Your task to perform on an android device: Open calendar and show me the second week of next month Image 0: 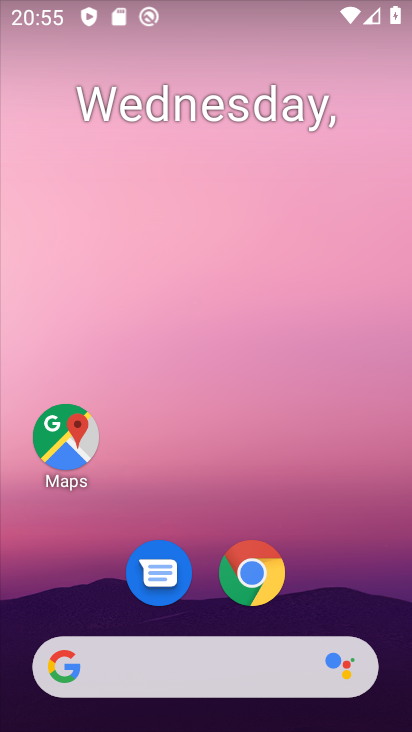
Step 0: drag from (352, 597) to (322, 193)
Your task to perform on an android device: Open calendar and show me the second week of next month Image 1: 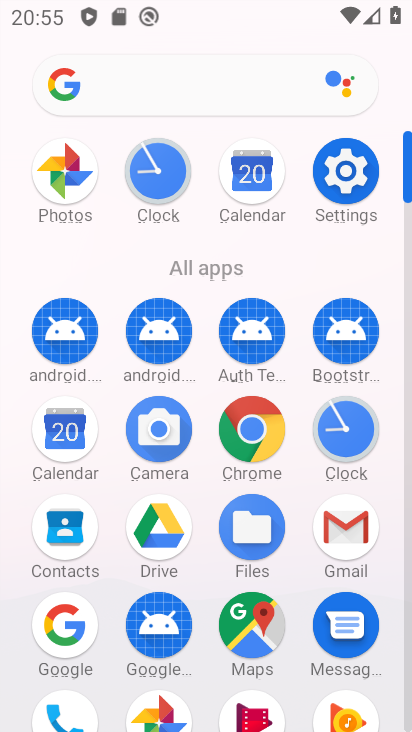
Step 1: click (57, 424)
Your task to perform on an android device: Open calendar and show me the second week of next month Image 2: 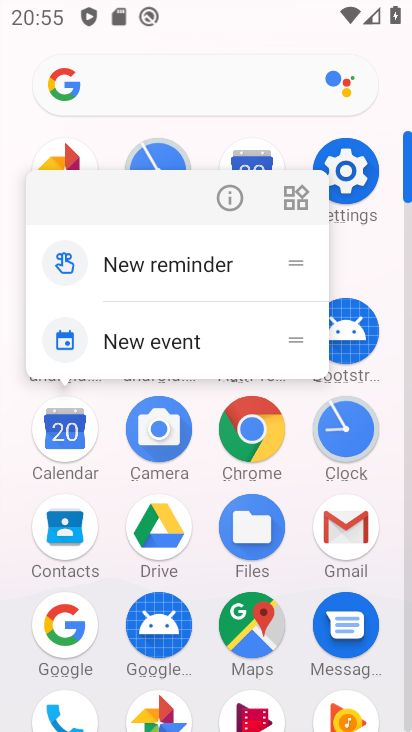
Step 2: click (61, 444)
Your task to perform on an android device: Open calendar and show me the second week of next month Image 3: 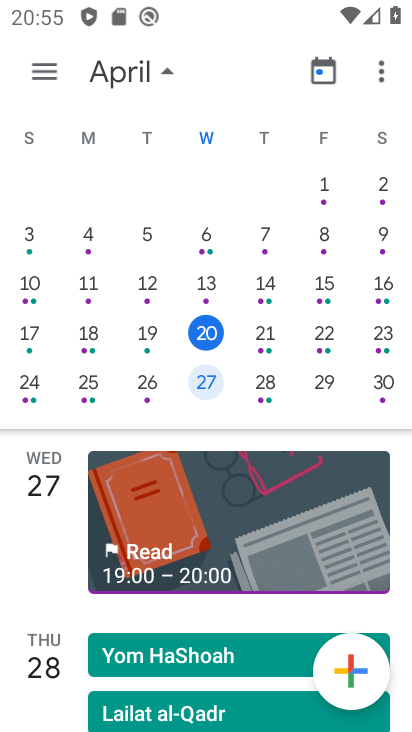
Step 3: drag from (391, 266) to (0, 261)
Your task to perform on an android device: Open calendar and show me the second week of next month Image 4: 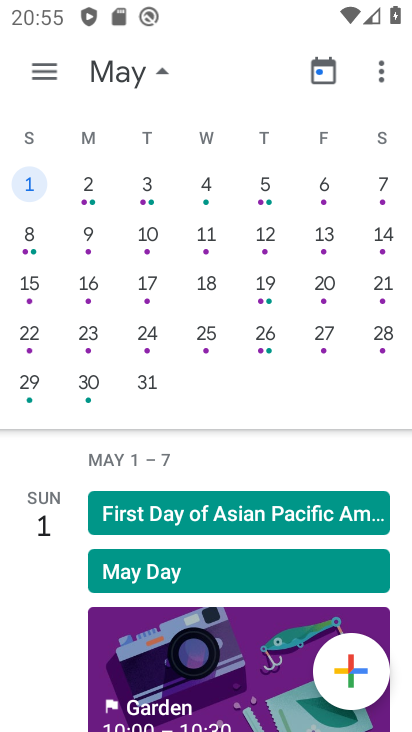
Step 4: click (392, 269)
Your task to perform on an android device: Open calendar and show me the second week of next month Image 5: 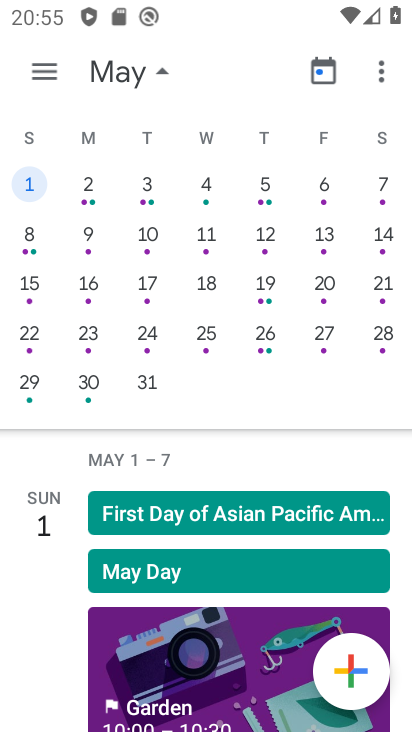
Step 5: click (202, 228)
Your task to perform on an android device: Open calendar and show me the second week of next month Image 6: 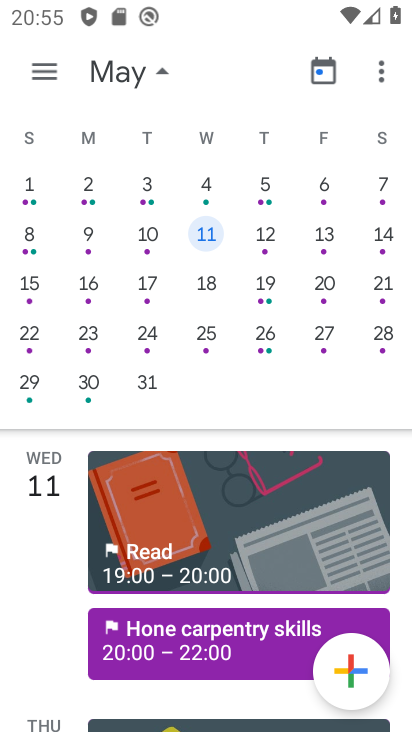
Step 6: task complete